Your task to perform on an android device: Go to Reddit.com Image 0: 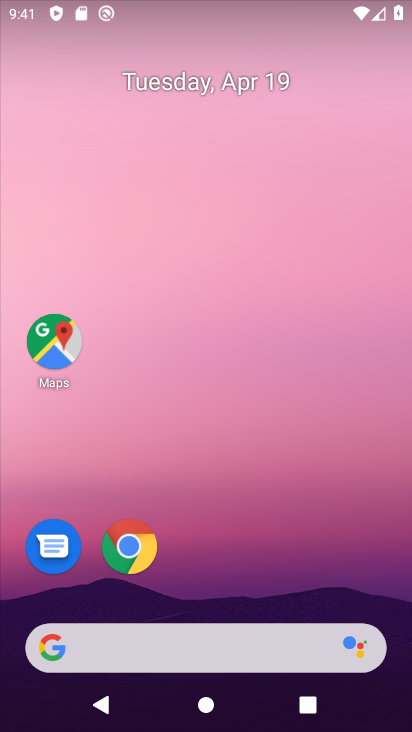
Step 0: click (203, 5)
Your task to perform on an android device: Go to Reddit.com Image 1: 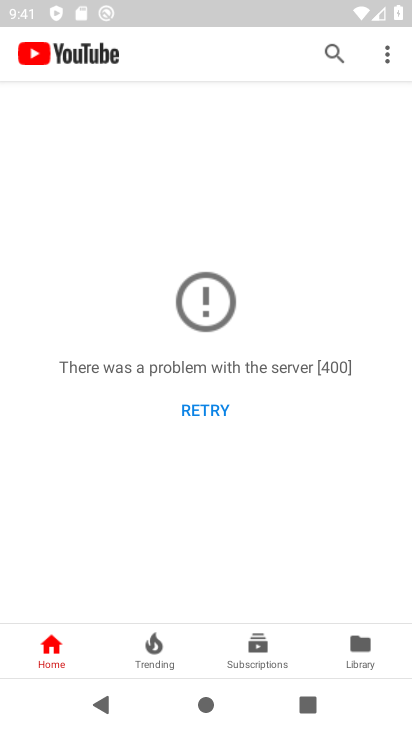
Step 1: press home button
Your task to perform on an android device: Go to Reddit.com Image 2: 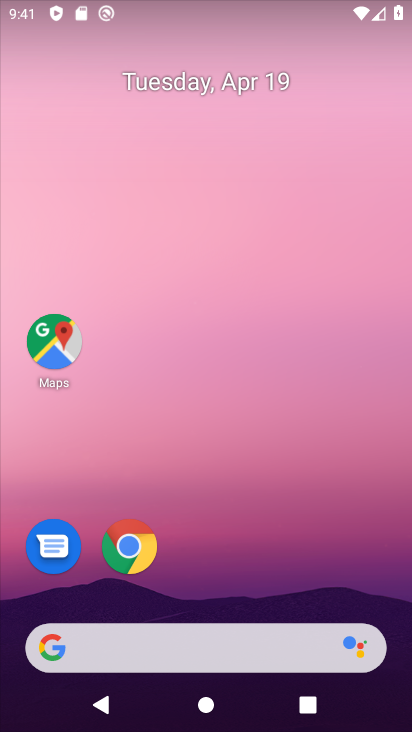
Step 2: click (133, 563)
Your task to perform on an android device: Go to Reddit.com Image 3: 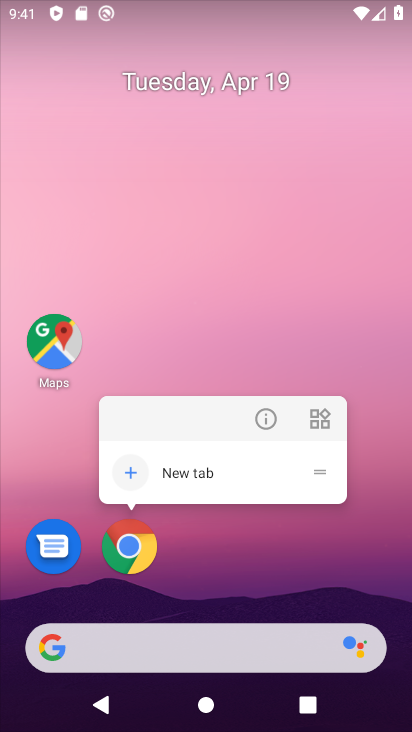
Step 3: click (133, 563)
Your task to perform on an android device: Go to Reddit.com Image 4: 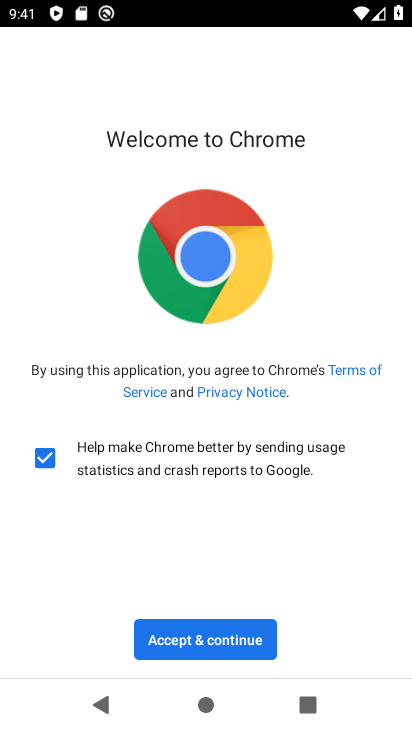
Step 4: click (200, 646)
Your task to perform on an android device: Go to Reddit.com Image 5: 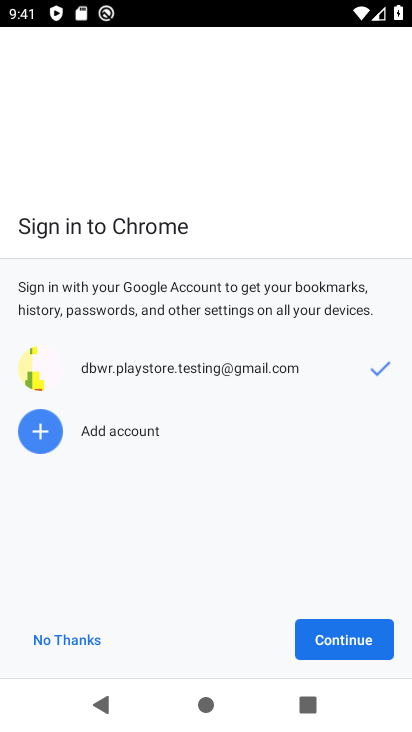
Step 5: click (324, 630)
Your task to perform on an android device: Go to Reddit.com Image 6: 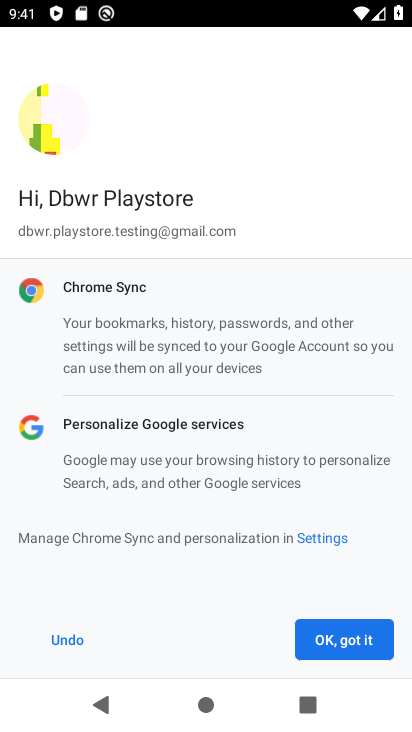
Step 6: click (324, 630)
Your task to perform on an android device: Go to Reddit.com Image 7: 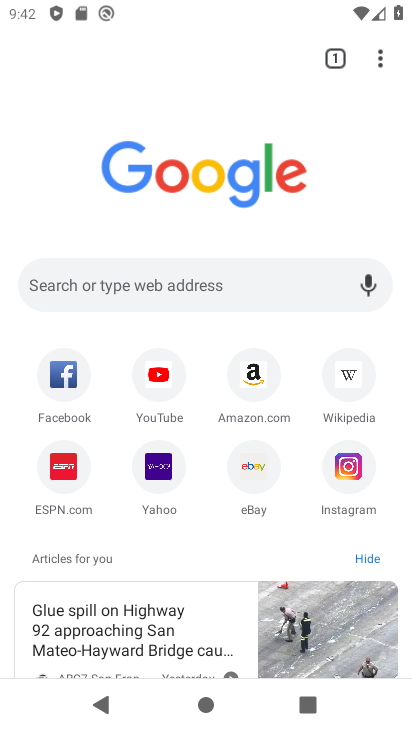
Step 7: click (264, 267)
Your task to perform on an android device: Go to Reddit.com Image 8: 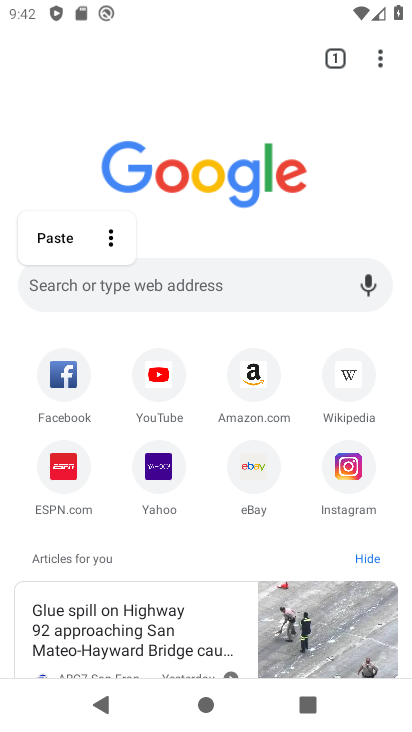
Step 8: click (172, 289)
Your task to perform on an android device: Go to Reddit.com Image 9: 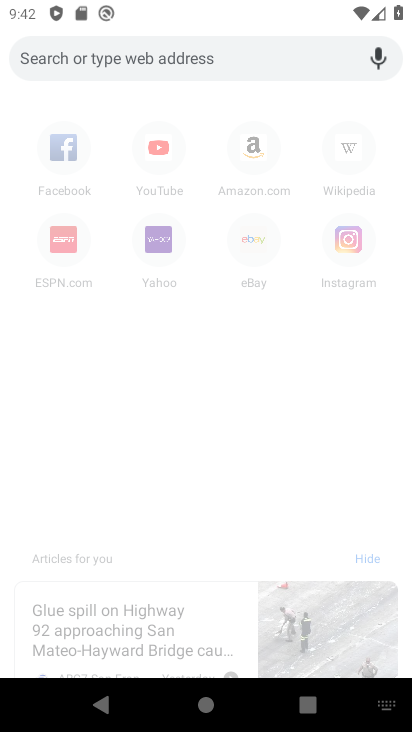
Step 9: type "reddit.com"
Your task to perform on an android device: Go to Reddit.com Image 10: 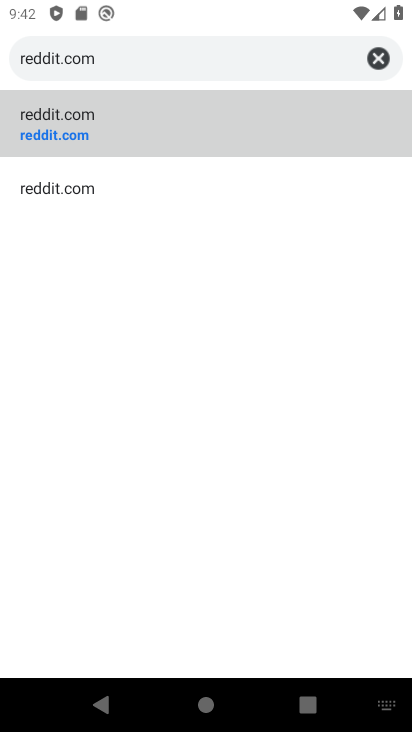
Step 10: click (262, 112)
Your task to perform on an android device: Go to Reddit.com Image 11: 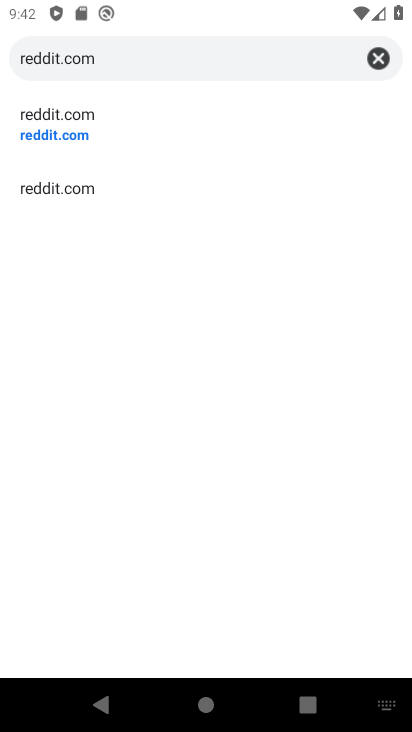
Step 11: click (233, 124)
Your task to perform on an android device: Go to Reddit.com Image 12: 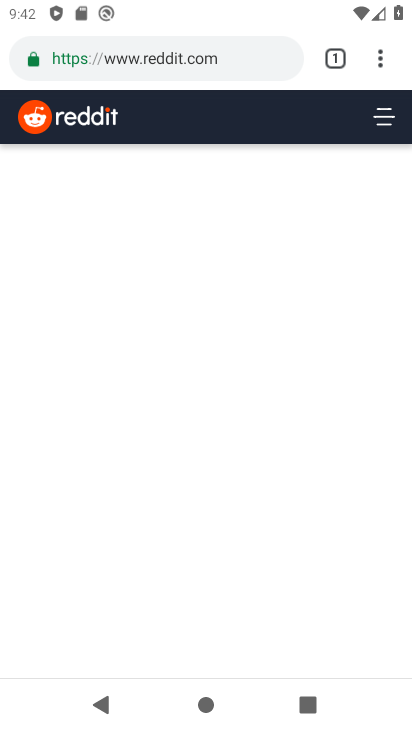
Step 12: task complete